Your task to perform on an android device: choose inbox layout in the gmail app Image 0: 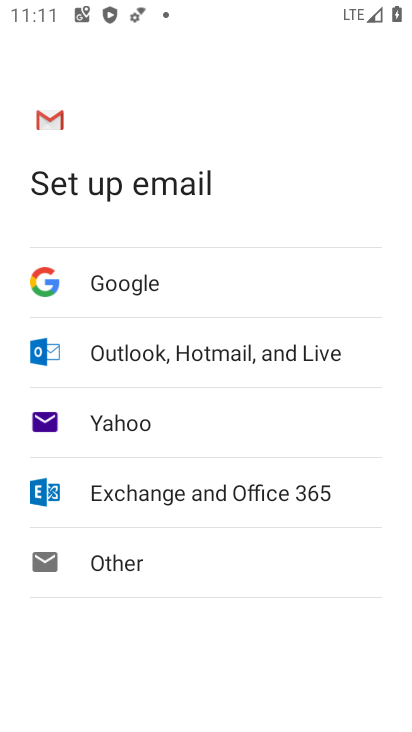
Step 0: press home button
Your task to perform on an android device: choose inbox layout in the gmail app Image 1: 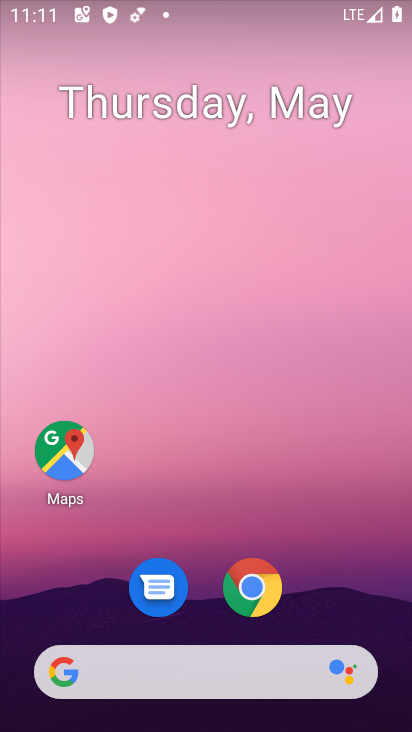
Step 1: drag from (81, 632) to (191, 186)
Your task to perform on an android device: choose inbox layout in the gmail app Image 2: 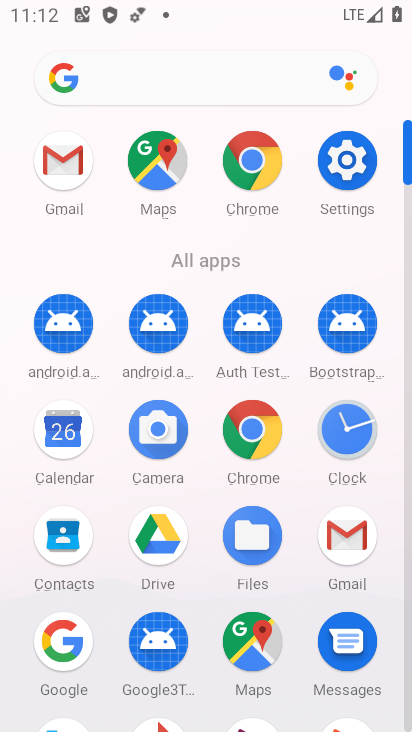
Step 2: click (353, 529)
Your task to perform on an android device: choose inbox layout in the gmail app Image 3: 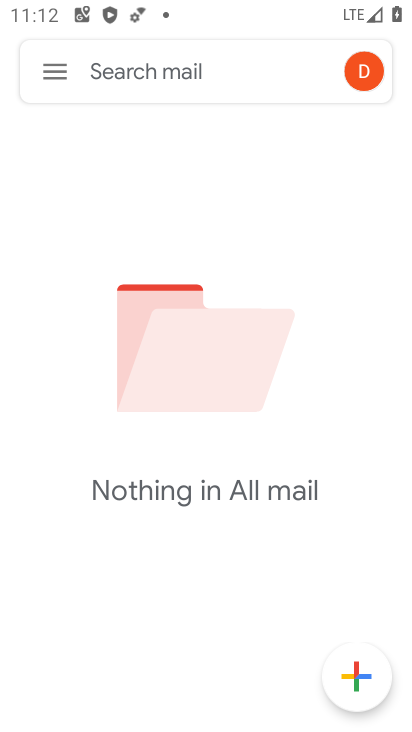
Step 3: click (58, 60)
Your task to perform on an android device: choose inbox layout in the gmail app Image 4: 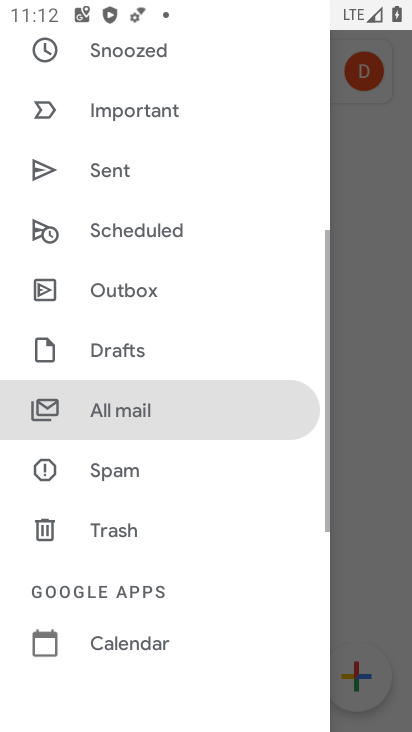
Step 4: drag from (140, 621) to (240, 271)
Your task to perform on an android device: choose inbox layout in the gmail app Image 5: 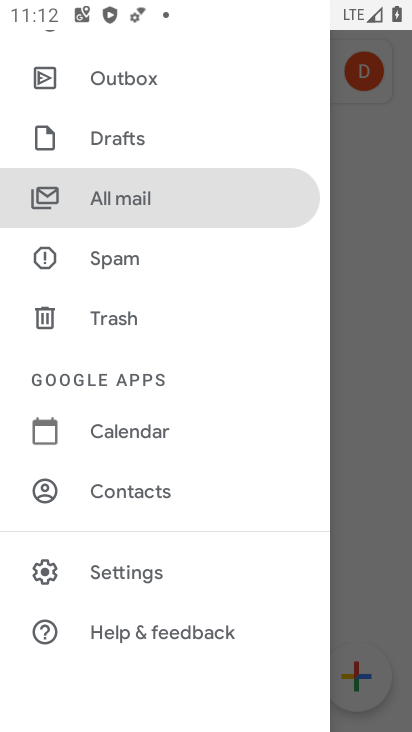
Step 5: click (159, 572)
Your task to perform on an android device: choose inbox layout in the gmail app Image 6: 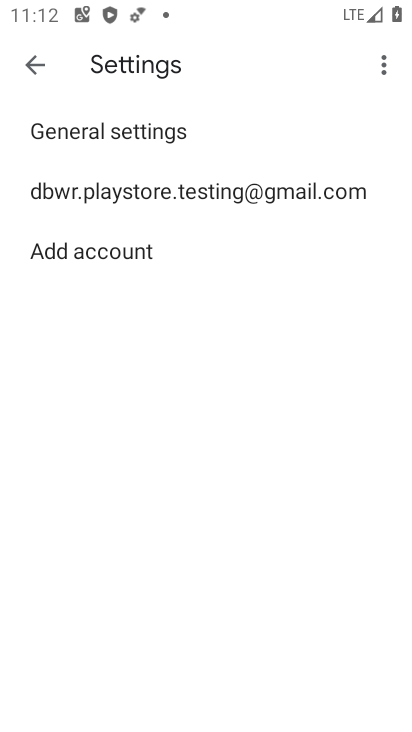
Step 6: click (226, 189)
Your task to perform on an android device: choose inbox layout in the gmail app Image 7: 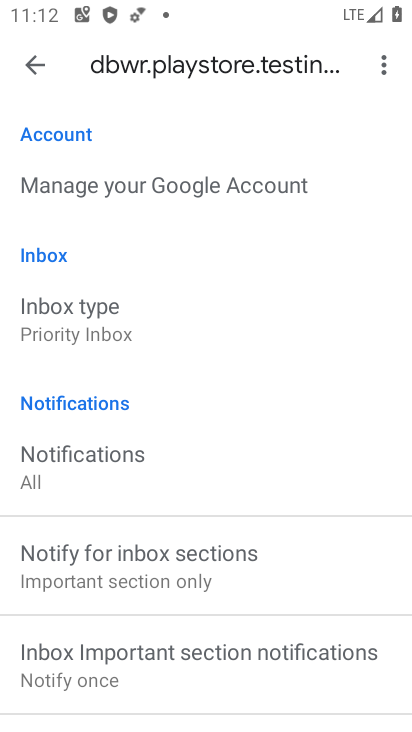
Step 7: click (205, 355)
Your task to perform on an android device: choose inbox layout in the gmail app Image 8: 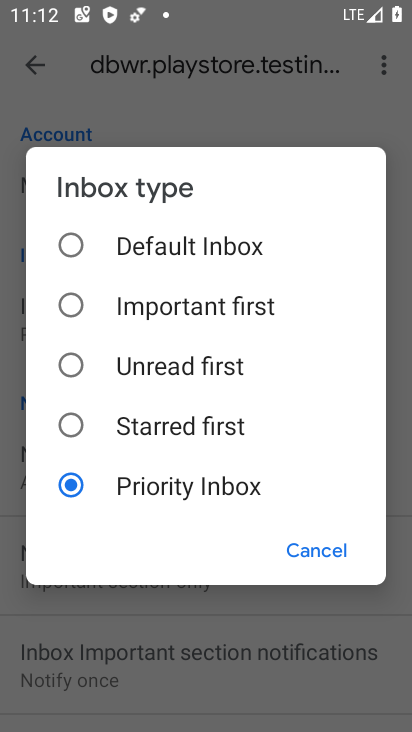
Step 8: click (213, 257)
Your task to perform on an android device: choose inbox layout in the gmail app Image 9: 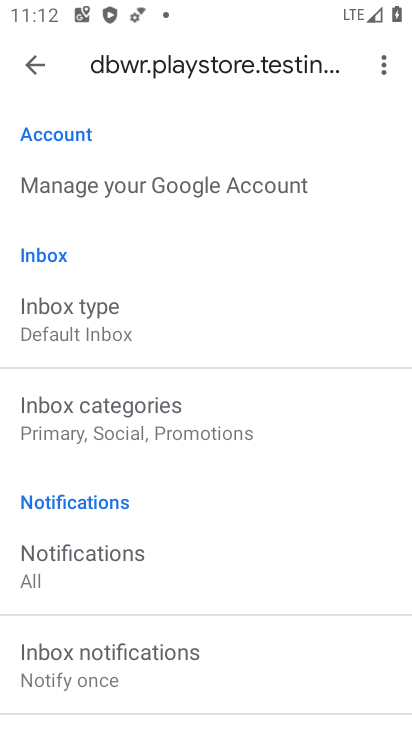
Step 9: task complete